Your task to perform on an android device: Open the phone app and click the voicemail tab. Image 0: 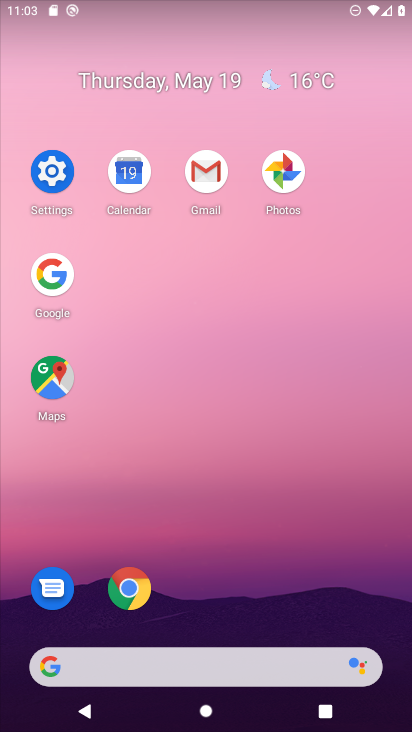
Step 0: drag from (196, 554) to (334, 110)
Your task to perform on an android device: Open the phone app and click the voicemail tab. Image 1: 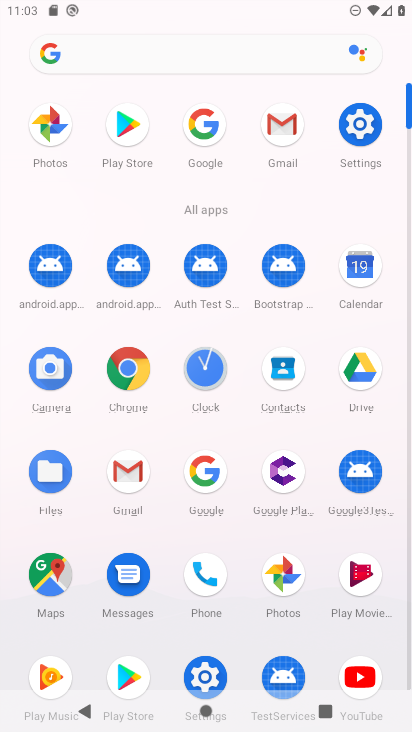
Step 1: click (203, 586)
Your task to perform on an android device: Open the phone app and click the voicemail tab. Image 2: 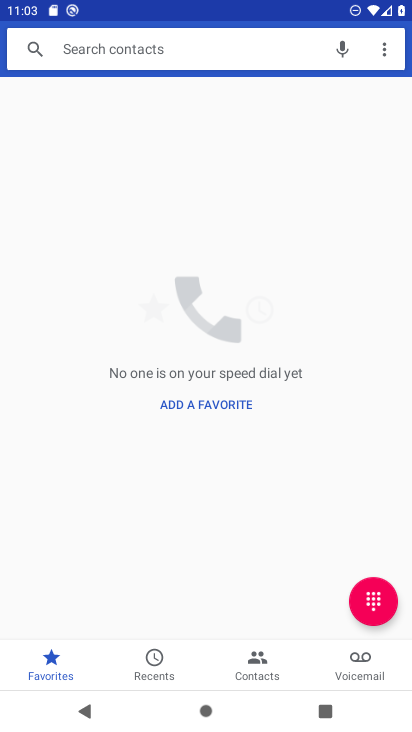
Step 2: click (382, 677)
Your task to perform on an android device: Open the phone app and click the voicemail tab. Image 3: 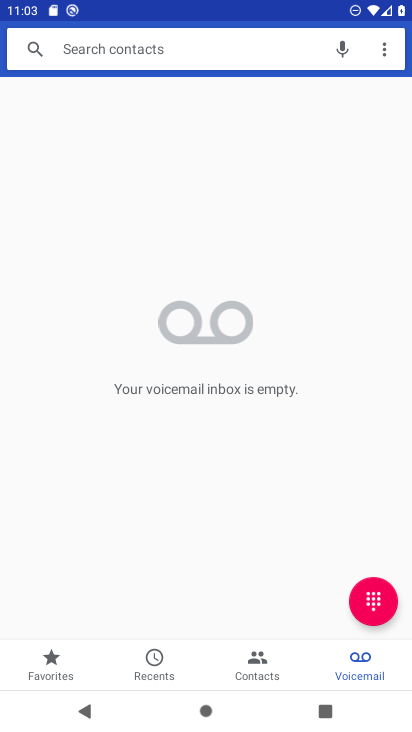
Step 3: task complete